Your task to perform on an android device: check storage Image 0: 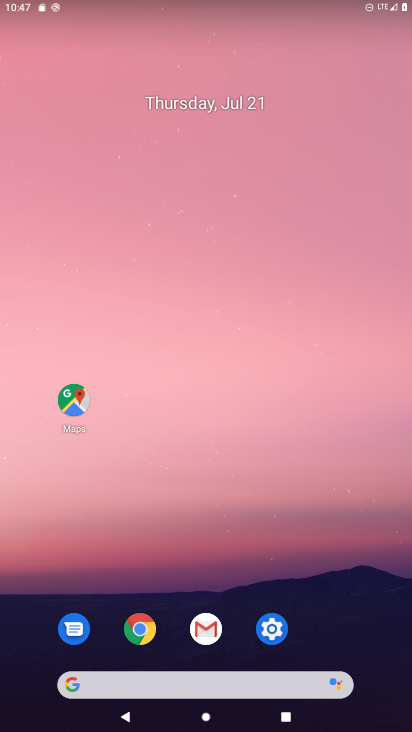
Step 0: click (272, 644)
Your task to perform on an android device: check storage Image 1: 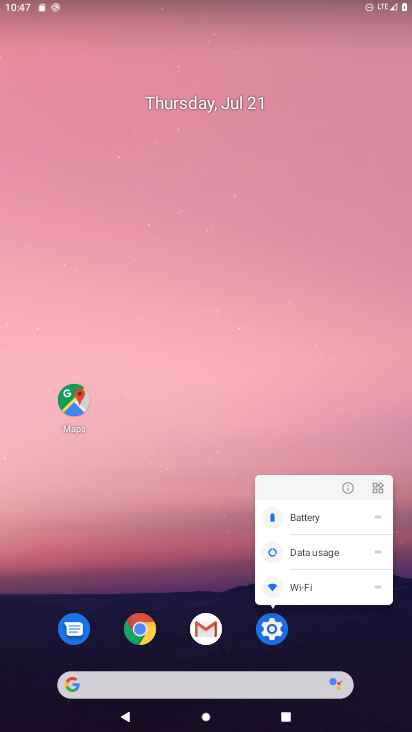
Step 1: click (271, 633)
Your task to perform on an android device: check storage Image 2: 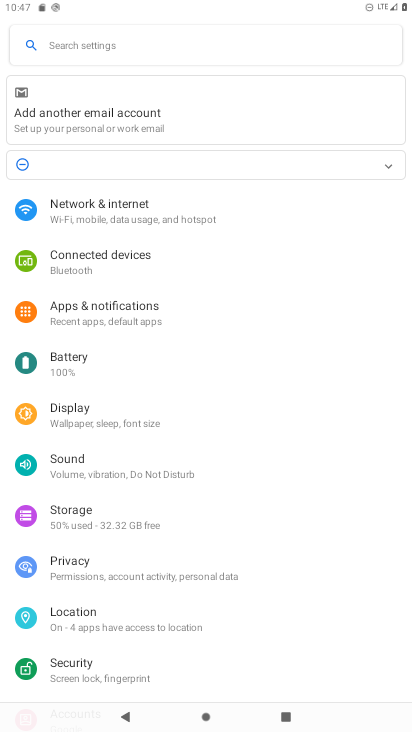
Step 2: click (87, 53)
Your task to perform on an android device: check storage Image 3: 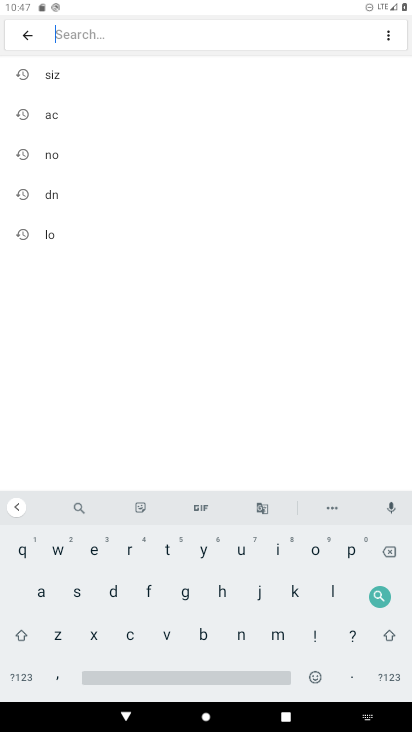
Step 3: click (79, 592)
Your task to perform on an android device: check storage Image 4: 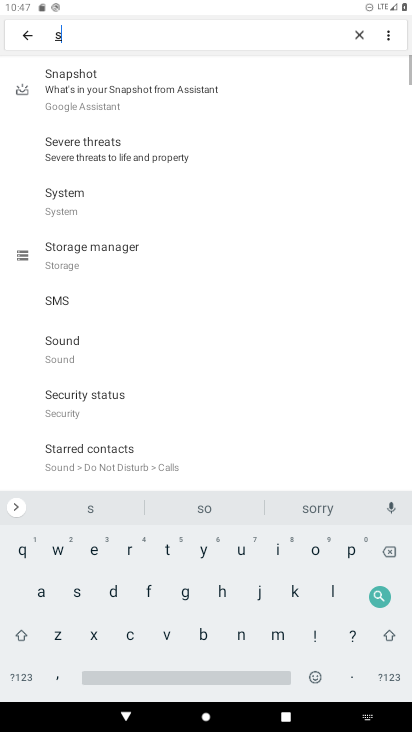
Step 4: click (172, 549)
Your task to perform on an android device: check storage Image 5: 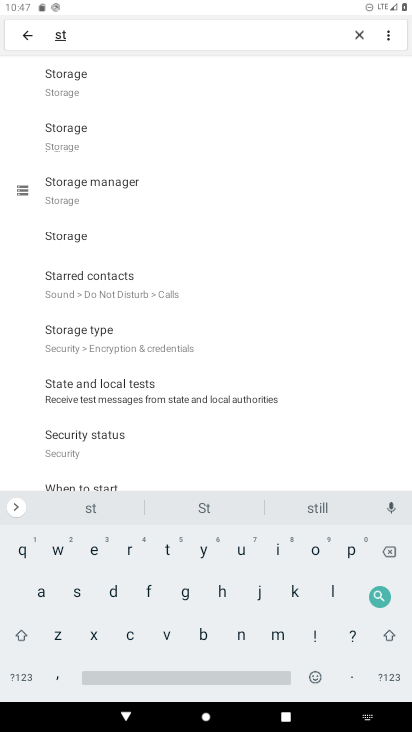
Step 5: click (91, 82)
Your task to perform on an android device: check storage Image 6: 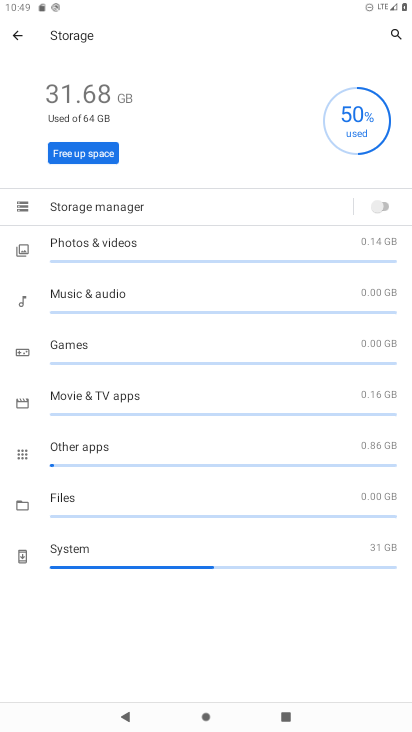
Step 6: task complete